Your task to perform on an android device: toggle javascript in the chrome app Image 0: 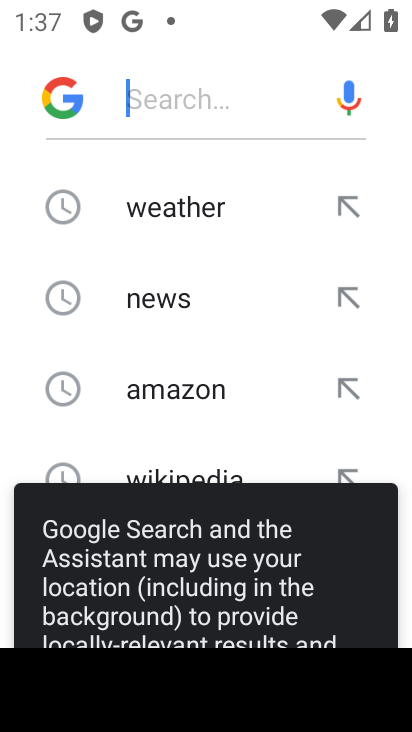
Step 0: press home button
Your task to perform on an android device: toggle javascript in the chrome app Image 1: 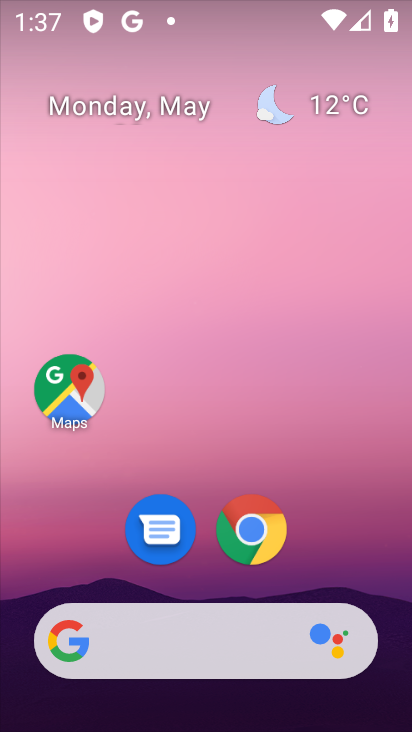
Step 1: click (252, 530)
Your task to perform on an android device: toggle javascript in the chrome app Image 2: 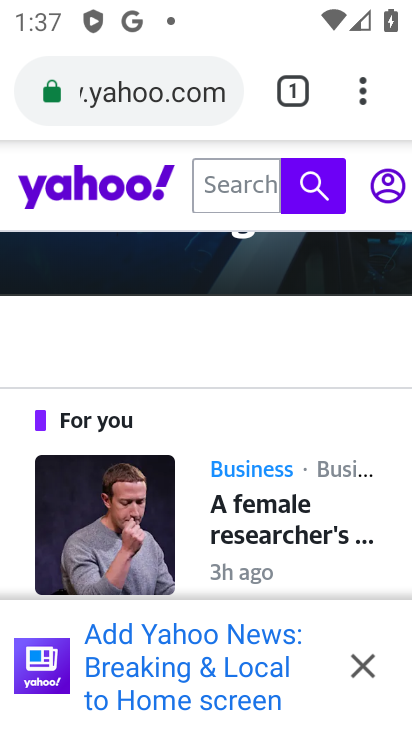
Step 2: click (365, 98)
Your task to perform on an android device: toggle javascript in the chrome app Image 3: 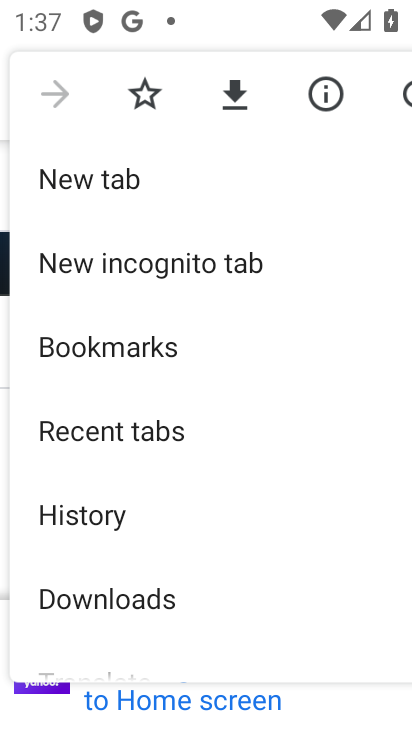
Step 3: drag from (228, 605) to (277, 254)
Your task to perform on an android device: toggle javascript in the chrome app Image 4: 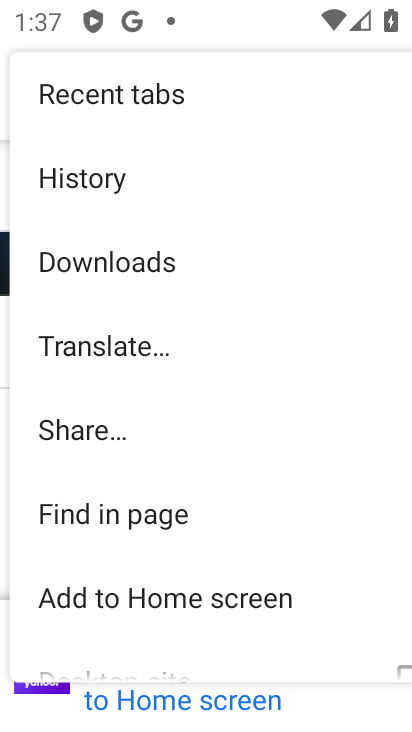
Step 4: drag from (320, 590) to (256, 214)
Your task to perform on an android device: toggle javascript in the chrome app Image 5: 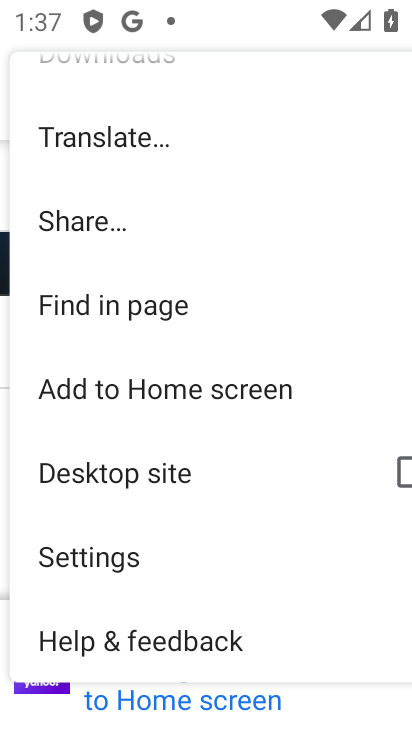
Step 5: click (102, 549)
Your task to perform on an android device: toggle javascript in the chrome app Image 6: 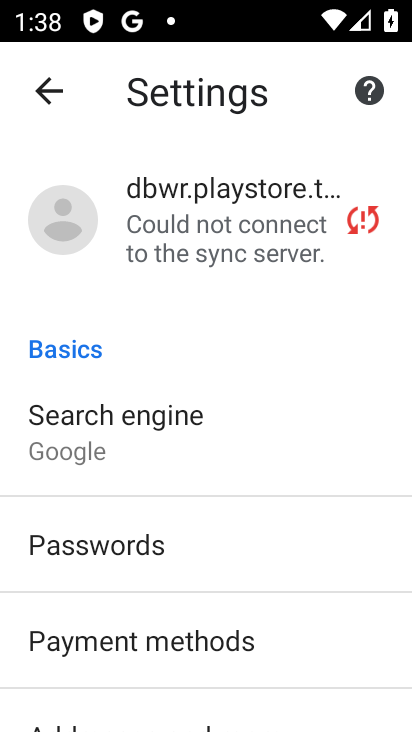
Step 6: drag from (289, 607) to (257, 213)
Your task to perform on an android device: toggle javascript in the chrome app Image 7: 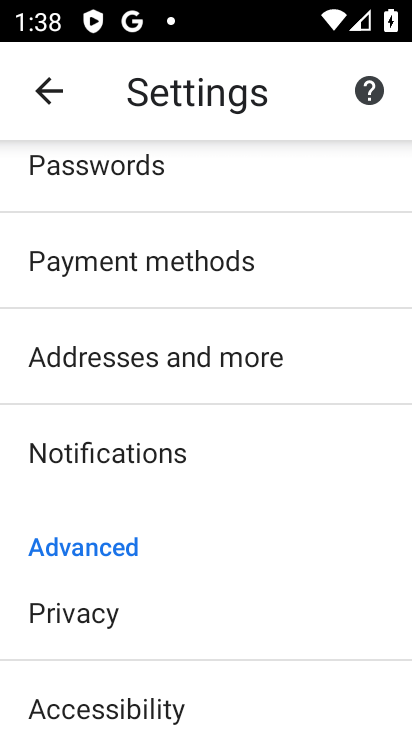
Step 7: drag from (232, 575) to (260, 196)
Your task to perform on an android device: toggle javascript in the chrome app Image 8: 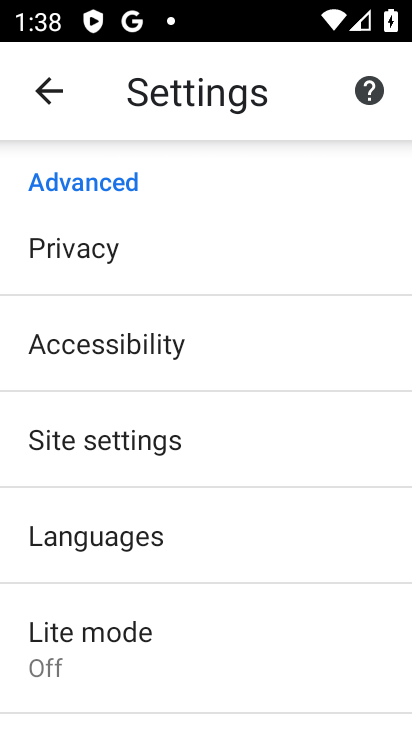
Step 8: click (110, 422)
Your task to perform on an android device: toggle javascript in the chrome app Image 9: 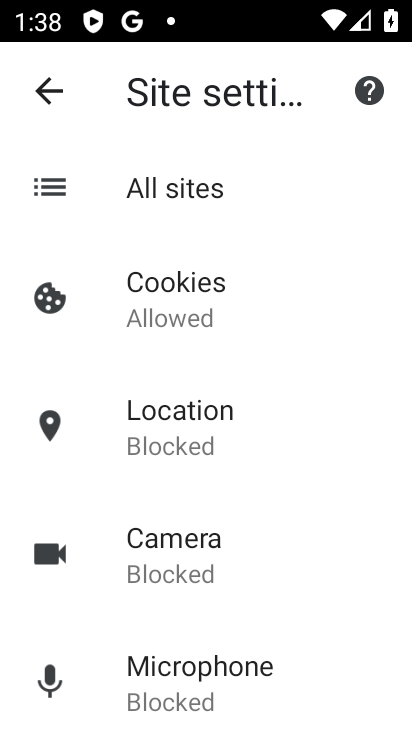
Step 9: drag from (320, 659) to (287, 182)
Your task to perform on an android device: toggle javascript in the chrome app Image 10: 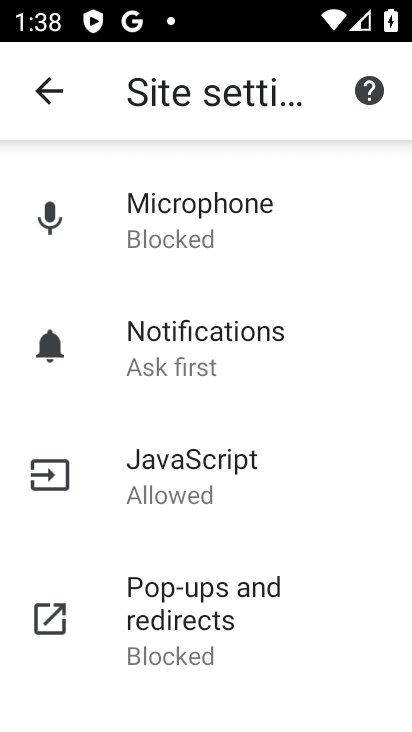
Step 10: click (184, 457)
Your task to perform on an android device: toggle javascript in the chrome app Image 11: 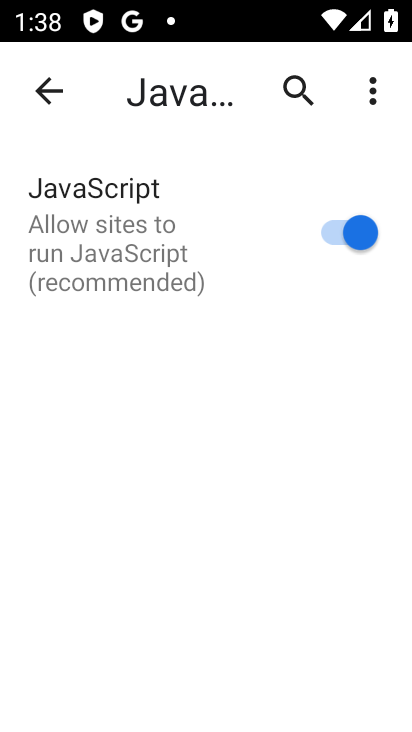
Step 11: click (323, 225)
Your task to perform on an android device: toggle javascript in the chrome app Image 12: 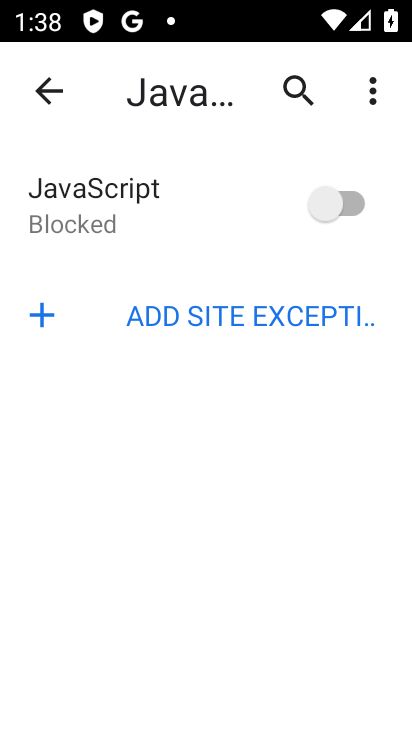
Step 12: task complete